Your task to perform on an android device: turn on sleep mode Image 0: 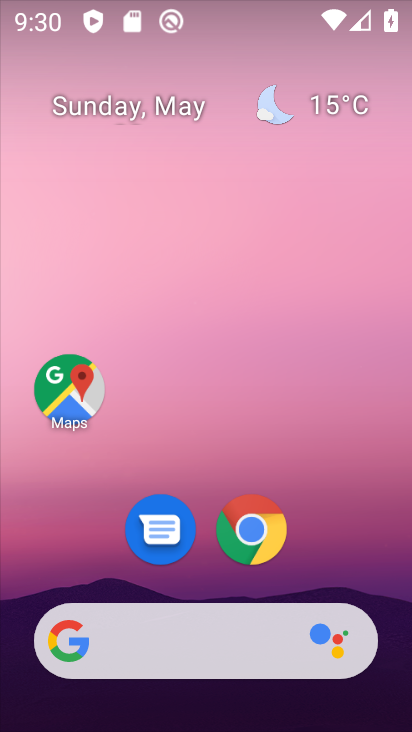
Step 0: drag from (211, 573) to (251, 99)
Your task to perform on an android device: turn on sleep mode Image 1: 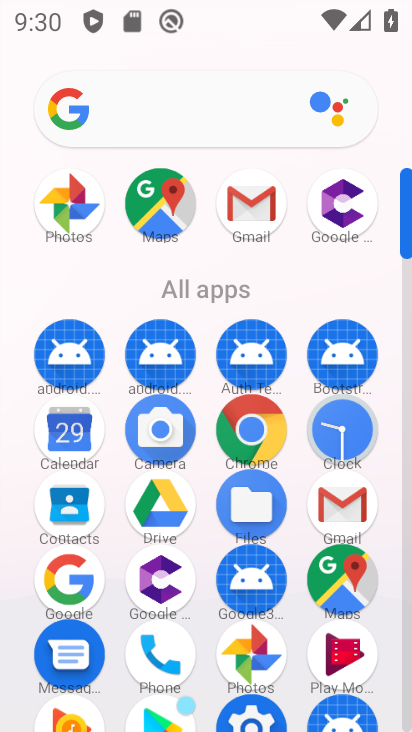
Step 1: drag from (391, 545) to (407, 332)
Your task to perform on an android device: turn on sleep mode Image 2: 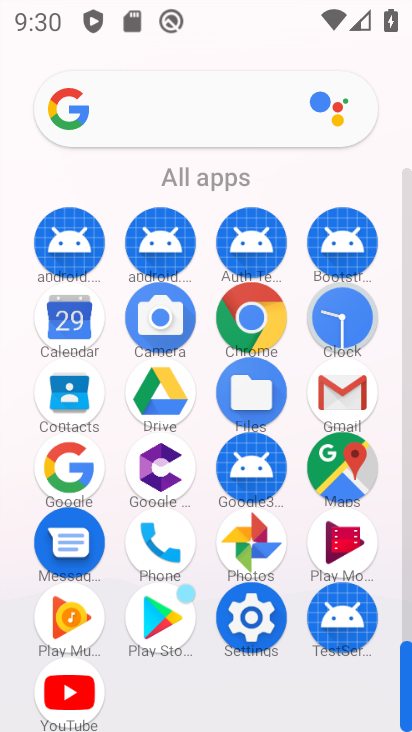
Step 2: click (272, 621)
Your task to perform on an android device: turn on sleep mode Image 3: 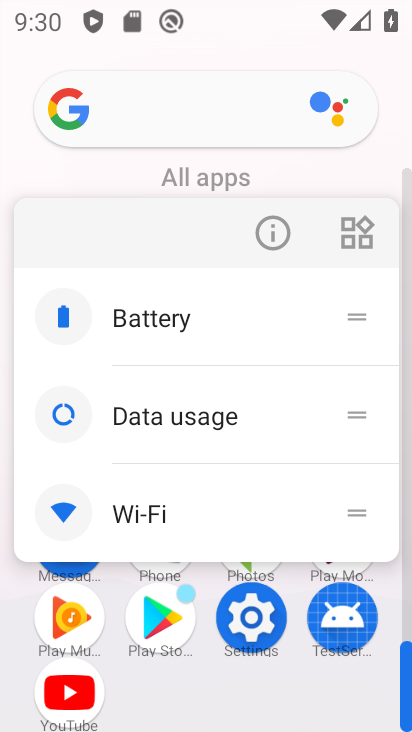
Step 3: click (183, 655)
Your task to perform on an android device: turn on sleep mode Image 4: 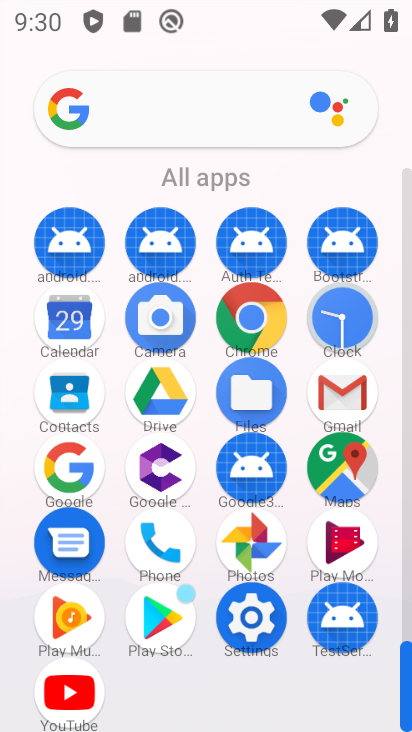
Step 4: click (244, 639)
Your task to perform on an android device: turn on sleep mode Image 5: 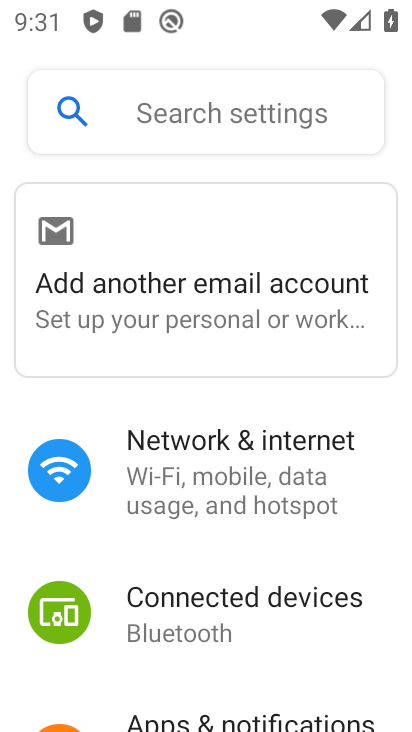
Step 5: drag from (244, 703) to (255, 261)
Your task to perform on an android device: turn on sleep mode Image 6: 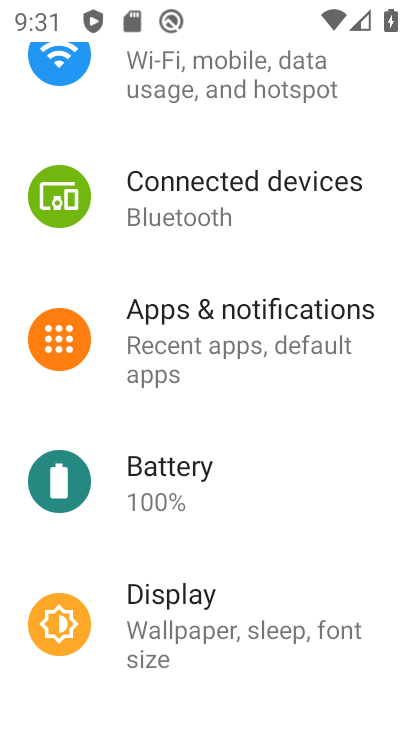
Step 6: click (284, 610)
Your task to perform on an android device: turn on sleep mode Image 7: 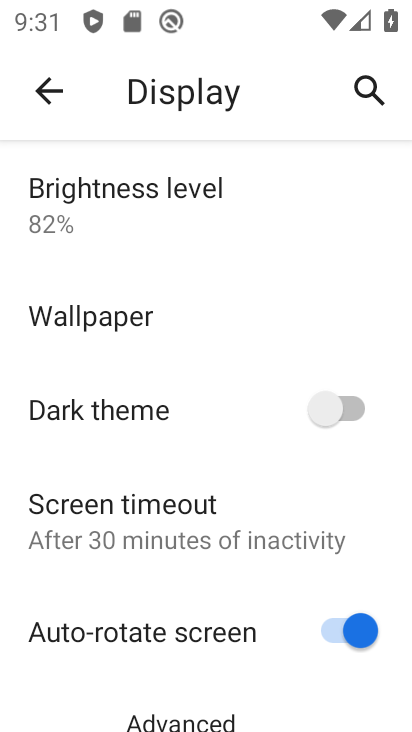
Step 7: task complete